Your task to perform on an android device: Open the calendar and show me this week's events? Image 0: 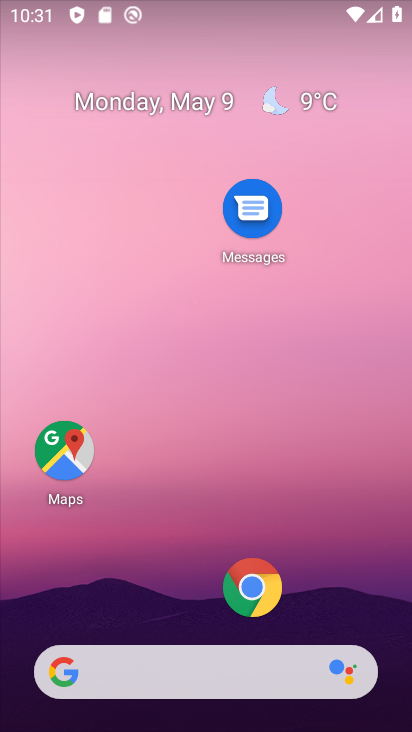
Step 0: click (235, 283)
Your task to perform on an android device: Open the calendar and show me this week's events? Image 1: 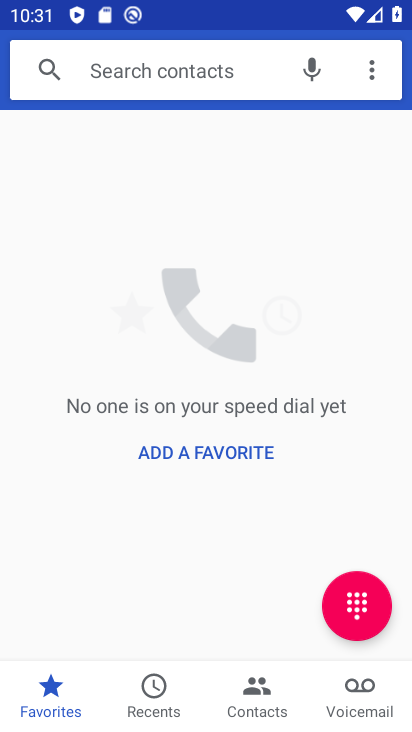
Step 1: press home button
Your task to perform on an android device: Open the calendar and show me this week's events? Image 2: 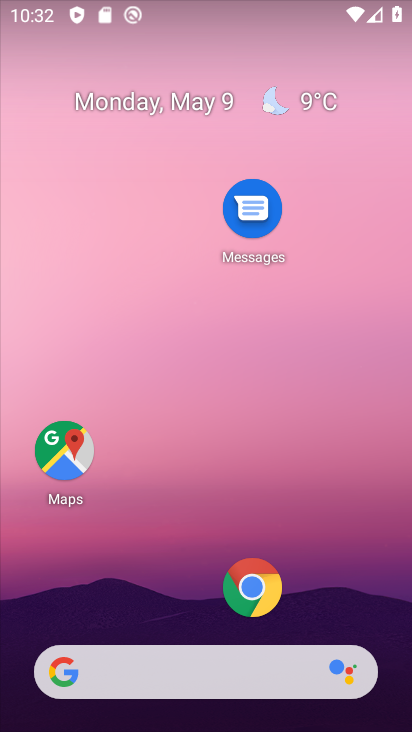
Step 2: drag from (216, 589) to (245, 141)
Your task to perform on an android device: Open the calendar and show me this week's events? Image 3: 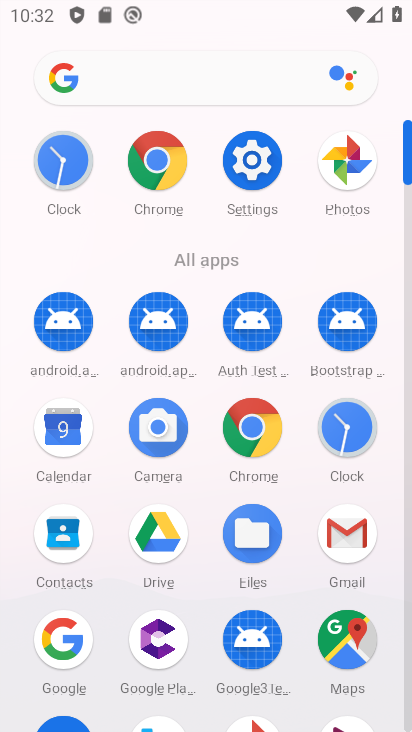
Step 3: drag from (180, 626) to (218, 119)
Your task to perform on an android device: Open the calendar and show me this week's events? Image 4: 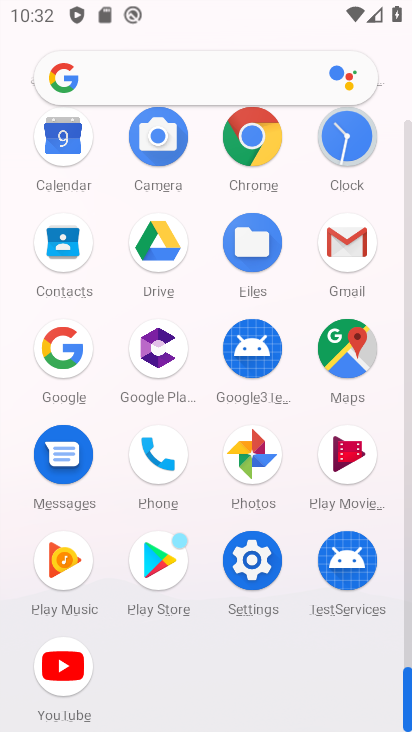
Step 4: click (62, 139)
Your task to perform on an android device: Open the calendar and show me this week's events? Image 5: 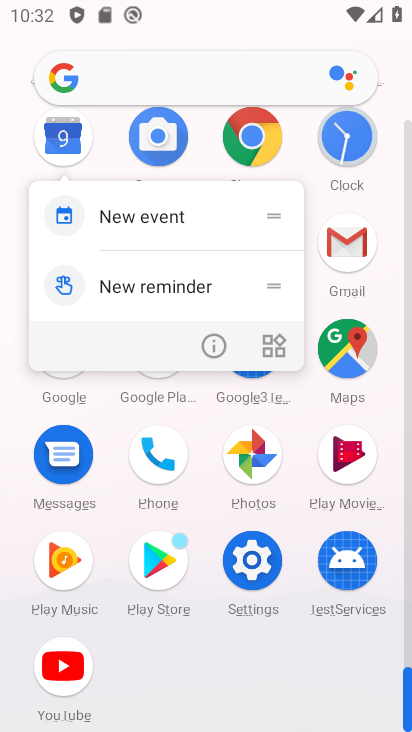
Step 5: click (214, 354)
Your task to perform on an android device: Open the calendar and show me this week's events? Image 6: 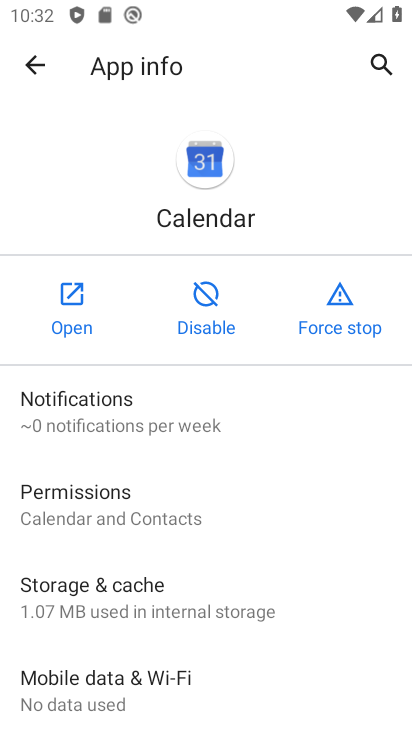
Step 6: click (76, 294)
Your task to perform on an android device: Open the calendar and show me this week's events? Image 7: 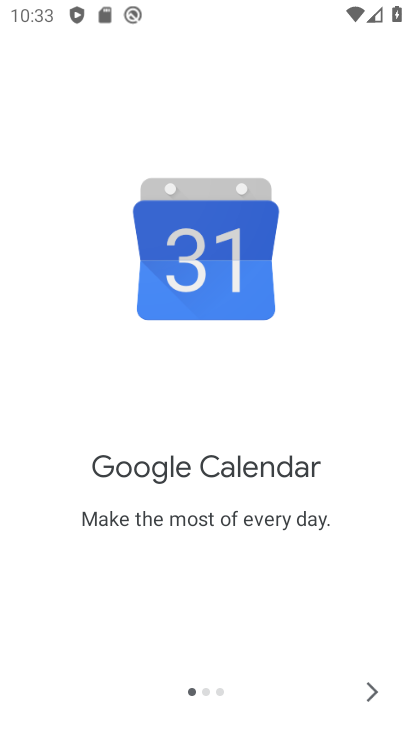
Step 7: click (352, 687)
Your task to perform on an android device: Open the calendar and show me this week's events? Image 8: 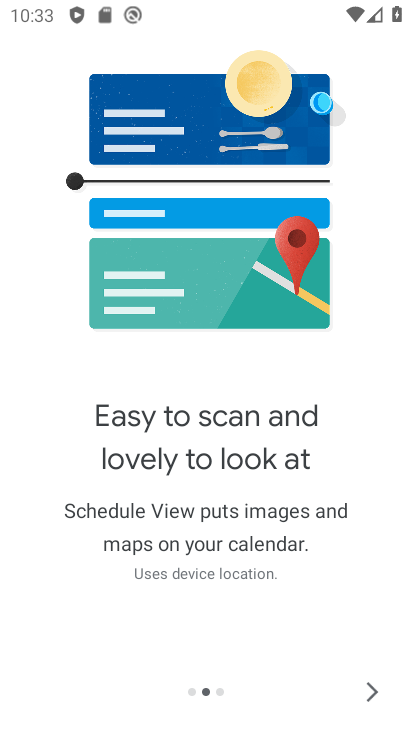
Step 8: click (372, 686)
Your task to perform on an android device: Open the calendar and show me this week's events? Image 9: 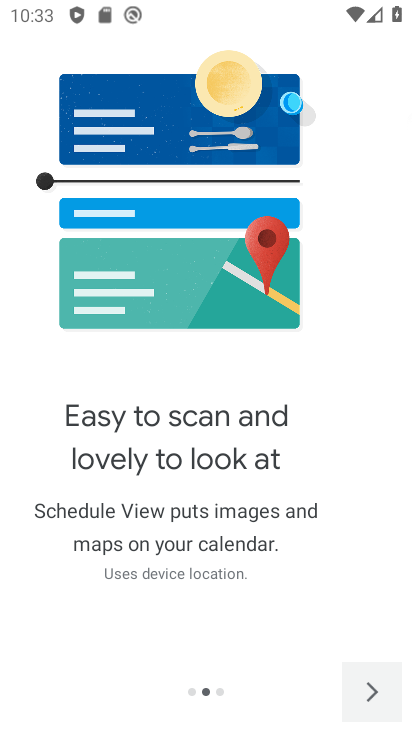
Step 9: click (372, 686)
Your task to perform on an android device: Open the calendar and show me this week's events? Image 10: 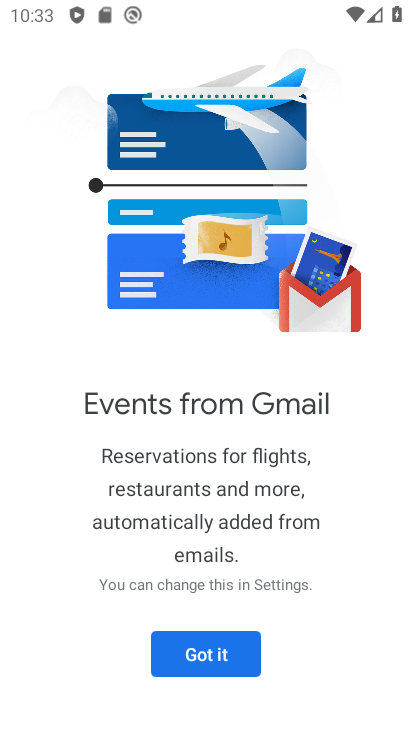
Step 10: click (195, 646)
Your task to perform on an android device: Open the calendar and show me this week's events? Image 11: 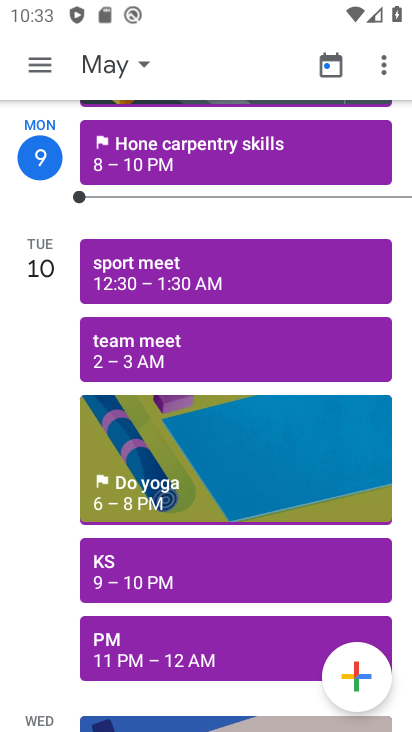
Step 11: drag from (191, 631) to (269, 296)
Your task to perform on an android device: Open the calendar and show me this week's events? Image 12: 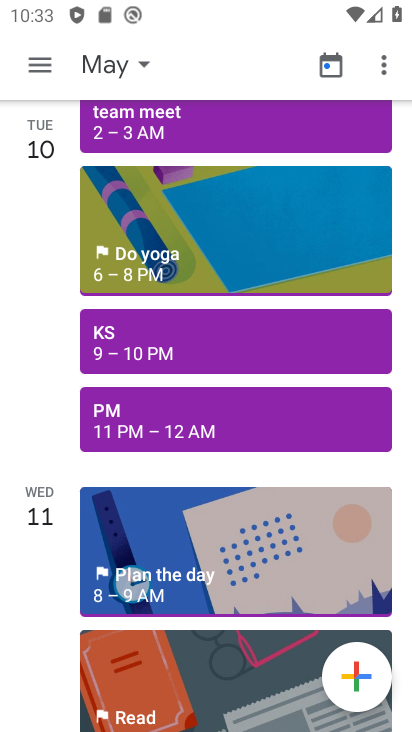
Step 12: drag from (238, 640) to (267, 233)
Your task to perform on an android device: Open the calendar and show me this week's events? Image 13: 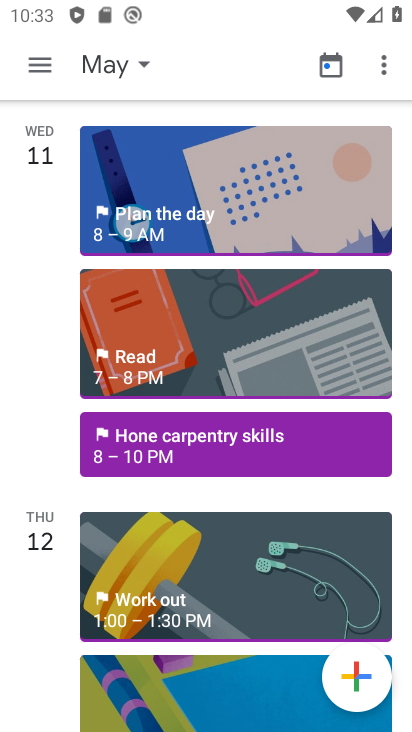
Step 13: drag from (201, 660) to (252, 362)
Your task to perform on an android device: Open the calendar and show me this week's events? Image 14: 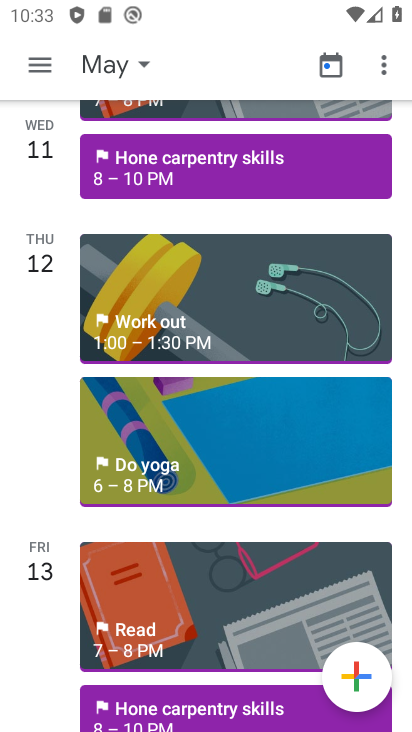
Step 14: click (234, 361)
Your task to perform on an android device: Open the calendar and show me this week's events? Image 15: 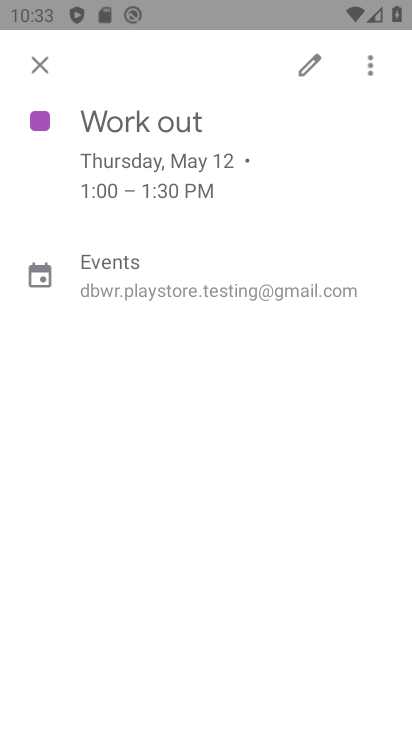
Step 15: click (141, 59)
Your task to perform on an android device: Open the calendar and show me this week's events? Image 16: 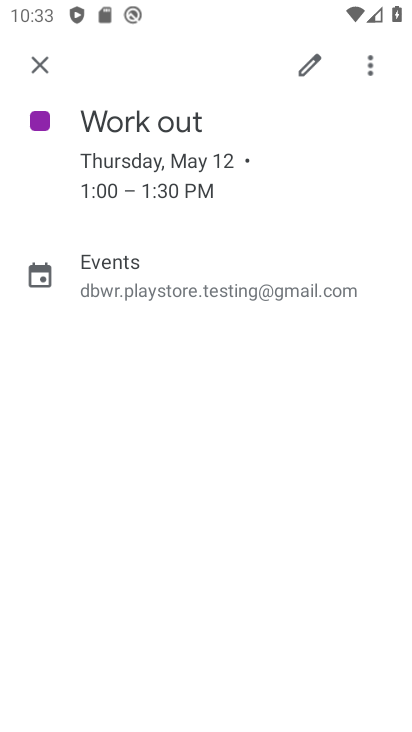
Step 16: click (39, 70)
Your task to perform on an android device: Open the calendar and show me this week's events? Image 17: 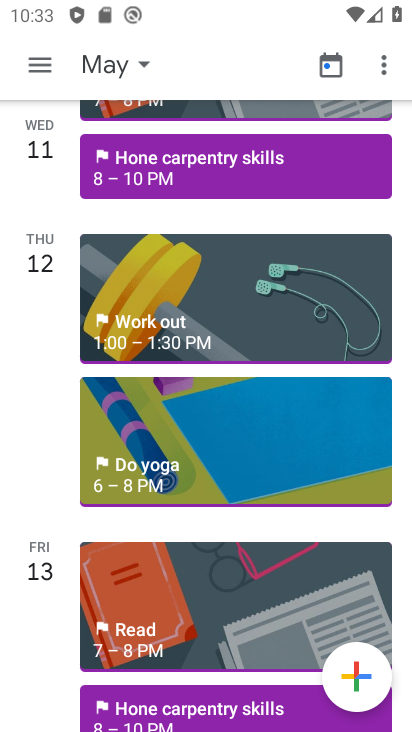
Step 17: click (119, 51)
Your task to perform on an android device: Open the calendar and show me this week's events? Image 18: 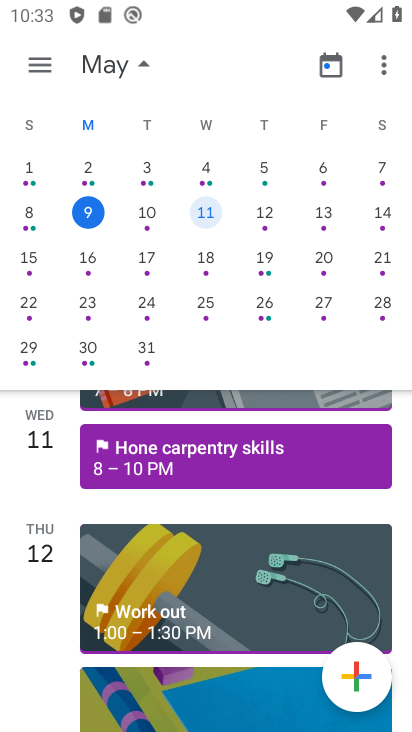
Step 18: click (258, 218)
Your task to perform on an android device: Open the calendar and show me this week's events? Image 19: 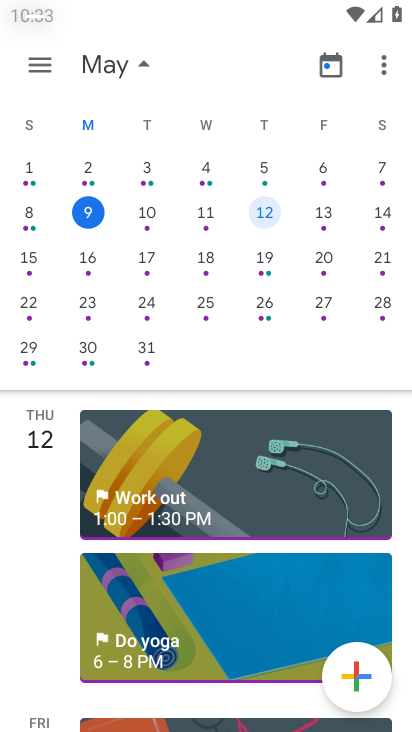
Step 19: task complete